Your task to perform on an android device: clear history in the chrome app Image 0: 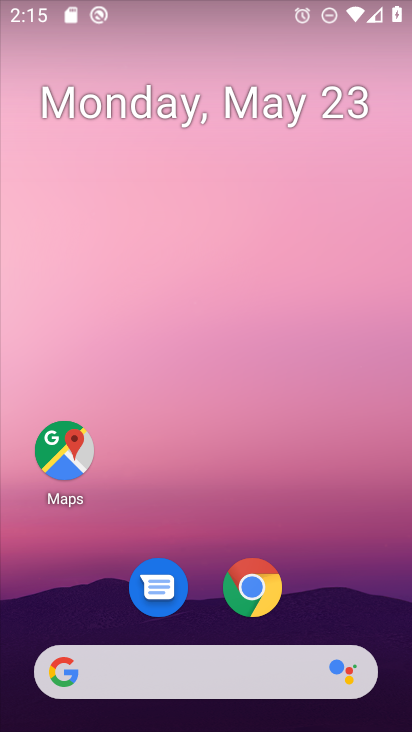
Step 0: click (278, 579)
Your task to perform on an android device: clear history in the chrome app Image 1: 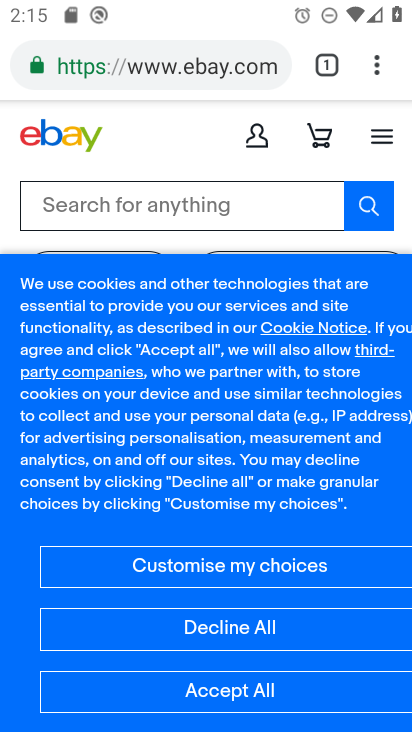
Step 1: click (385, 64)
Your task to perform on an android device: clear history in the chrome app Image 2: 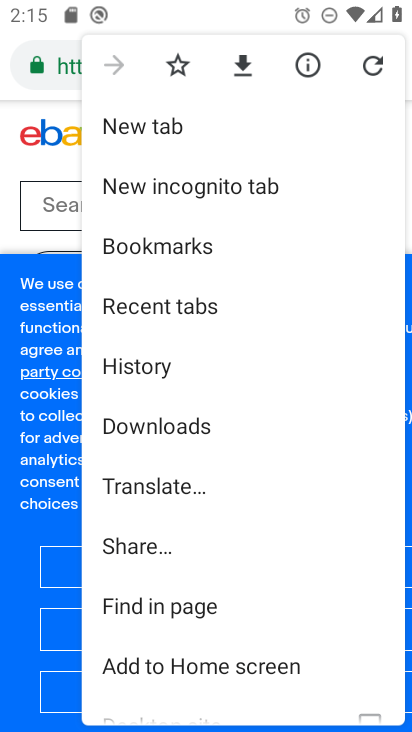
Step 2: drag from (231, 587) to (228, 369)
Your task to perform on an android device: clear history in the chrome app Image 3: 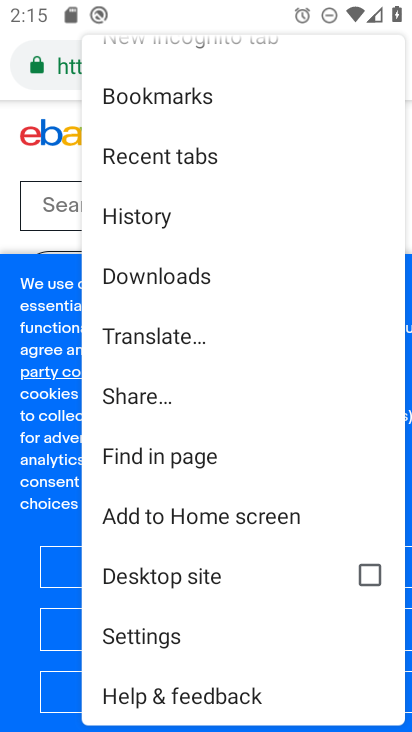
Step 3: click (220, 644)
Your task to perform on an android device: clear history in the chrome app Image 4: 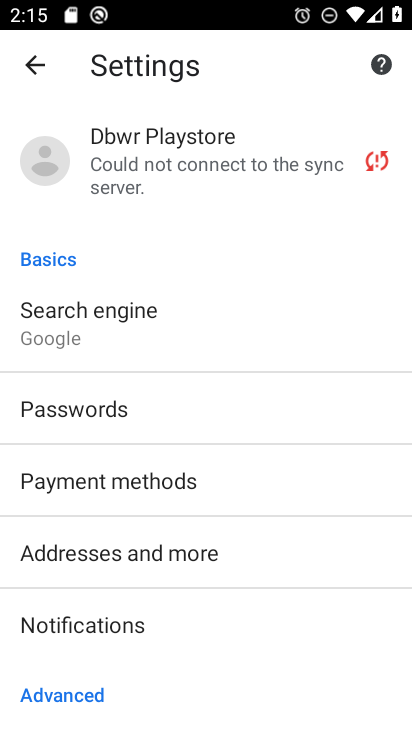
Step 4: click (44, 74)
Your task to perform on an android device: clear history in the chrome app Image 5: 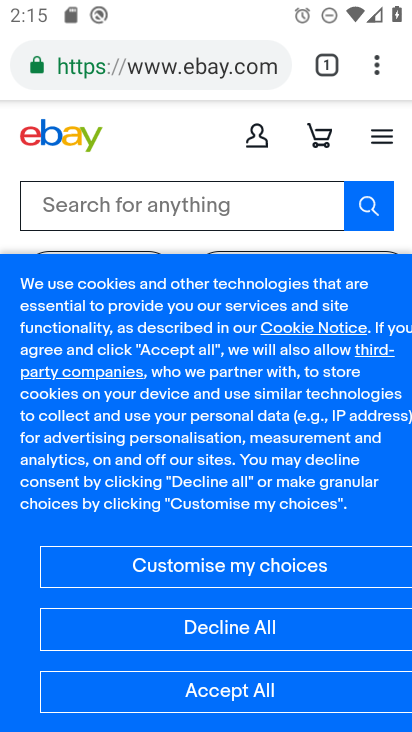
Step 5: click (367, 53)
Your task to perform on an android device: clear history in the chrome app Image 6: 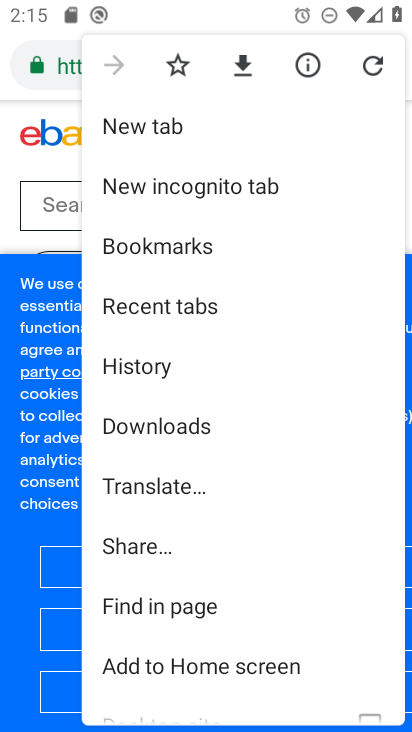
Step 6: click (159, 377)
Your task to perform on an android device: clear history in the chrome app Image 7: 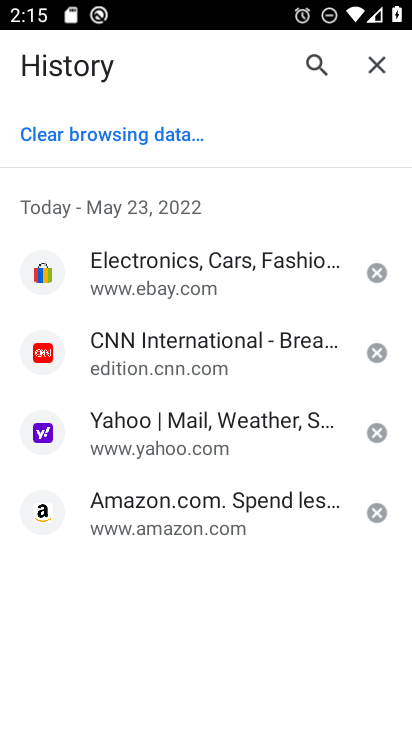
Step 7: click (131, 146)
Your task to perform on an android device: clear history in the chrome app Image 8: 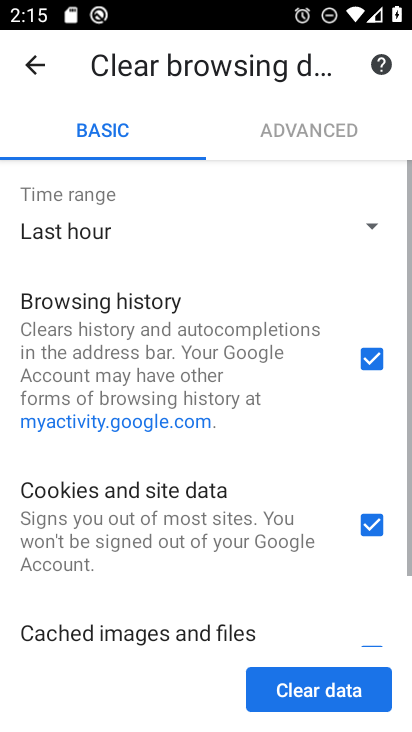
Step 8: click (302, 702)
Your task to perform on an android device: clear history in the chrome app Image 9: 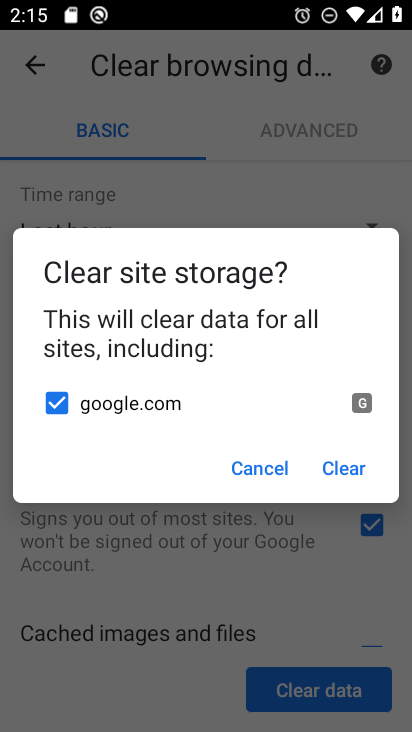
Step 9: click (333, 483)
Your task to perform on an android device: clear history in the chrome app Image 10: 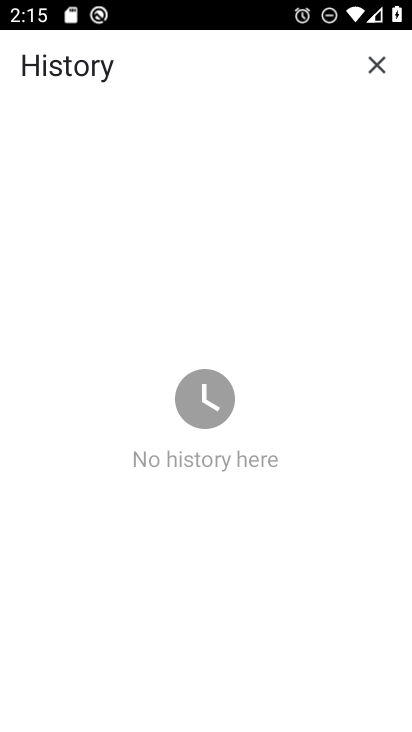
Step 10: task complete